Your task to perform on an android device: turn on notifications settings in the gmail app Image 0: 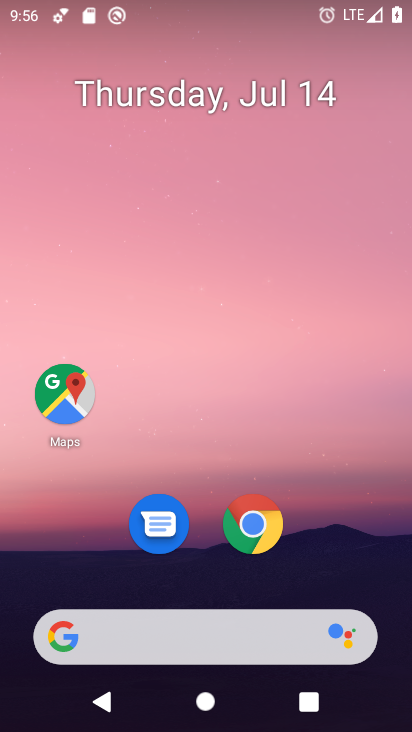
Step 0: drag from (343, 500) to (316, 31)
Your task to perform on an android device: turn on notifications settings in the gmail app Image 1: 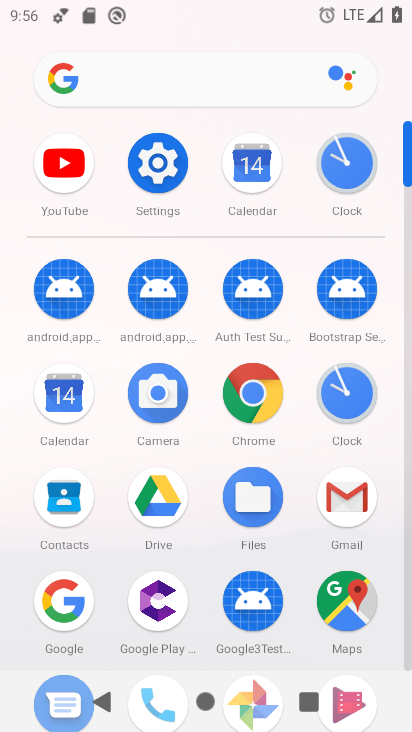
Step 1: click (340, 491)
Your task to perform on an android device: turn on notifications settings in the gmail app Image 2: 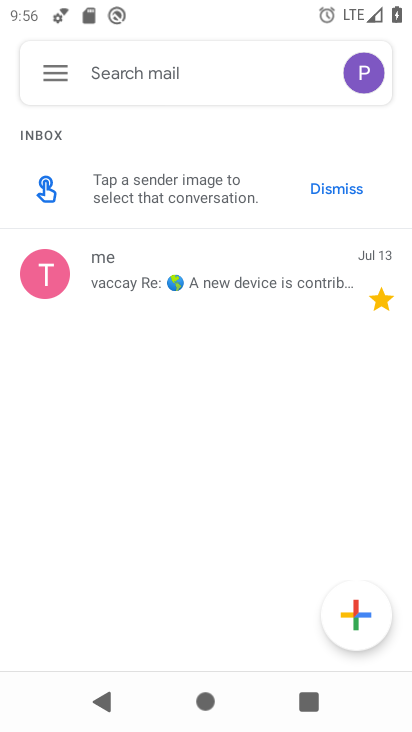
Step 2: click (60, 76)
Your task to perform on an android device: turn on notifications settings in the gmail app Image 3: 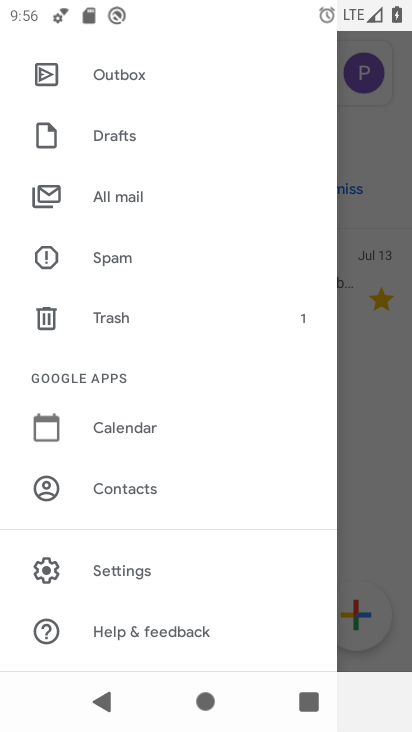
Step 3: click (136, 564)
Your task to perform on an android device: turn on notifications settings in the gmail app Image 4: 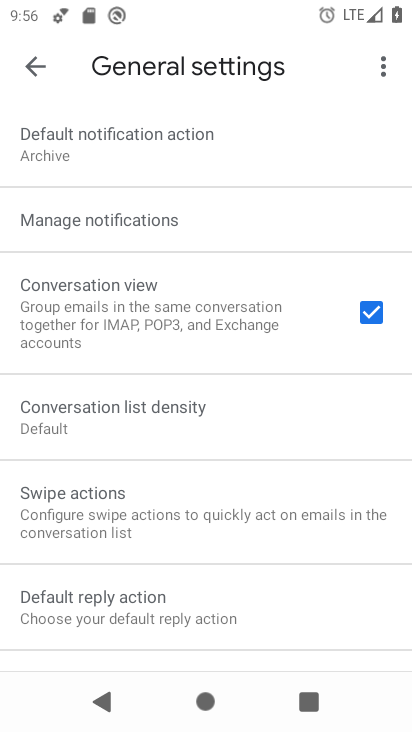
Step 4: click (192, 219)
Your task to perform on an android device: turn on notifications settings in the gmail app Image 5: 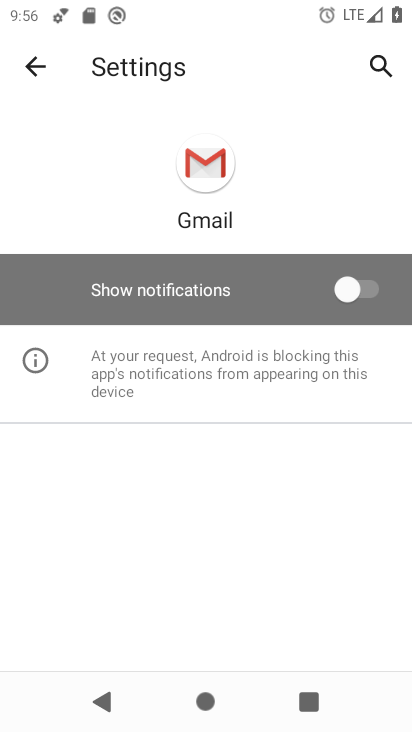
Step 5: click (358, 291)
Your task to perform on an android device: turn on notifications settings in the gmail app Image 6: 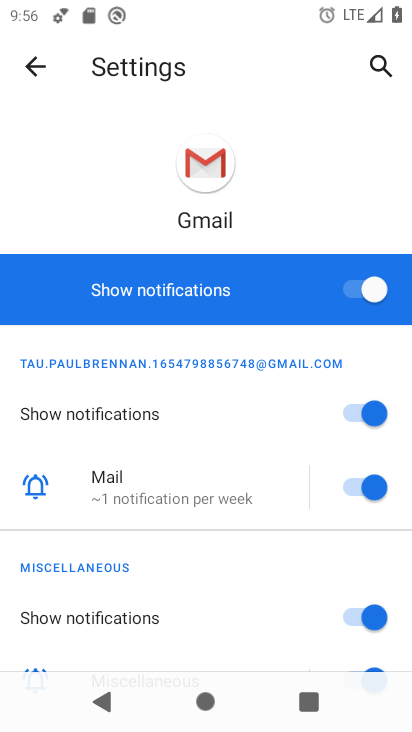
Step 6: task complete